Your task to perform on an android device: turn pop-ups off in chrome Image 0: 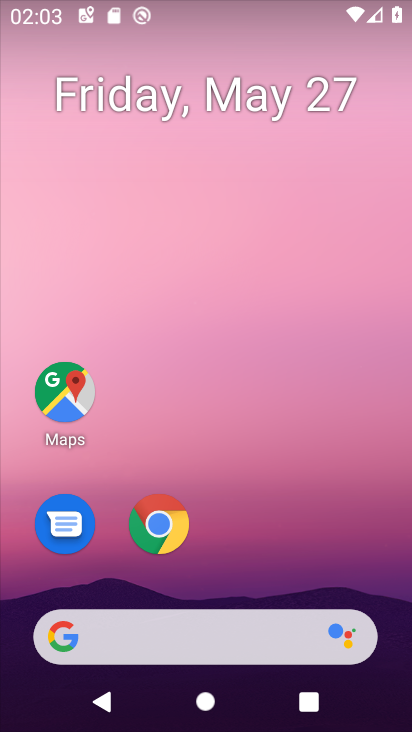
Step 0: click (169, 529)
Your task to perform on an android device: turn pop-ups off in chrome Image 1: 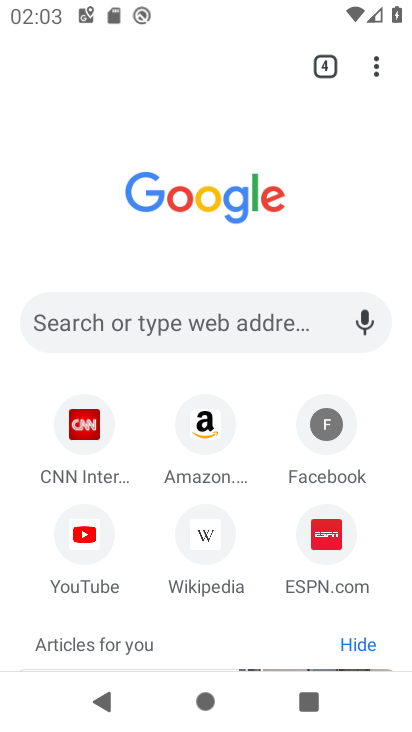
Step 1: click (375, 68)
Your task to perform on an android device: turn pop-ups off in chrome Image 2: 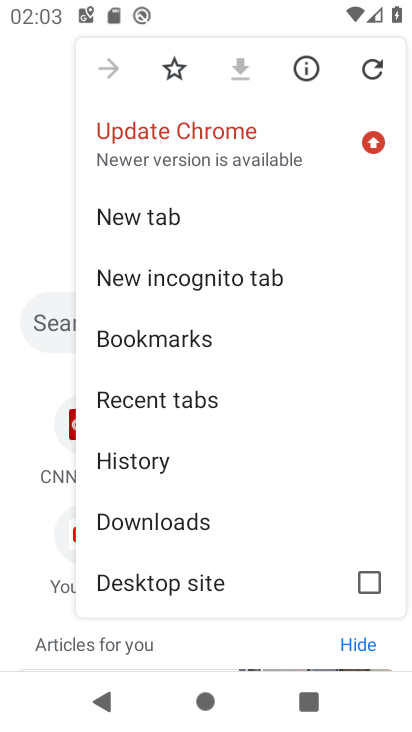
Step 2: drag from (269, 378) to (284, 193)
Your task to perform on an android device: turn pop-ups off in chrome Image 3: 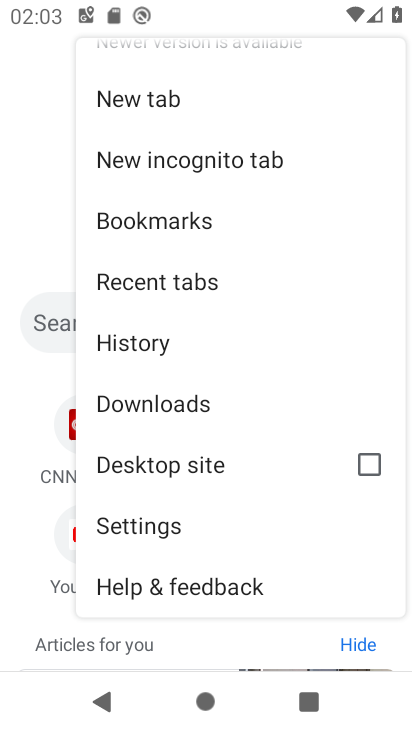
Step 3: click (189, 521)
Your task to perform on an android device: turn pop-ups off in chrome Image 4: 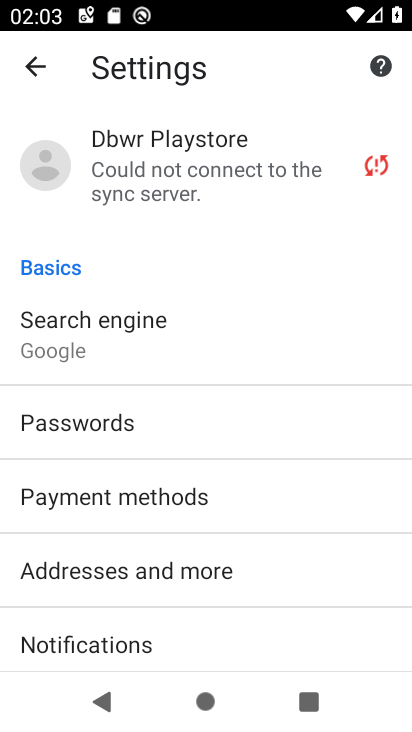
Step 4: drag from (216, 459) to (231, 28)
Your task to perform on an android device: turn pop-ups off in chrome Image 5: 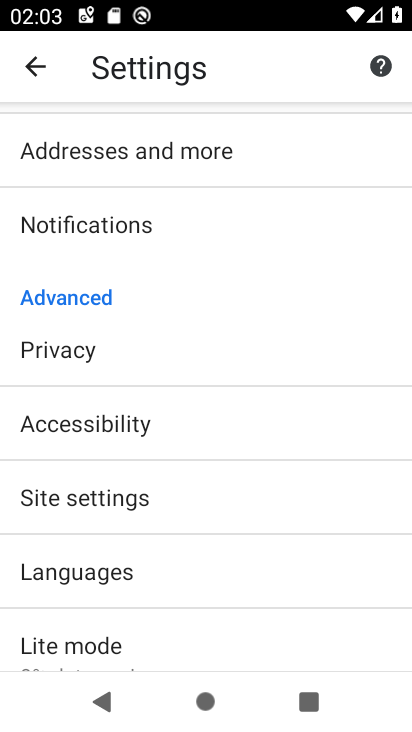
Step 5: click (188, 493)
Your task to perform on an android device: turn pop-ups off in chrome Image 6: 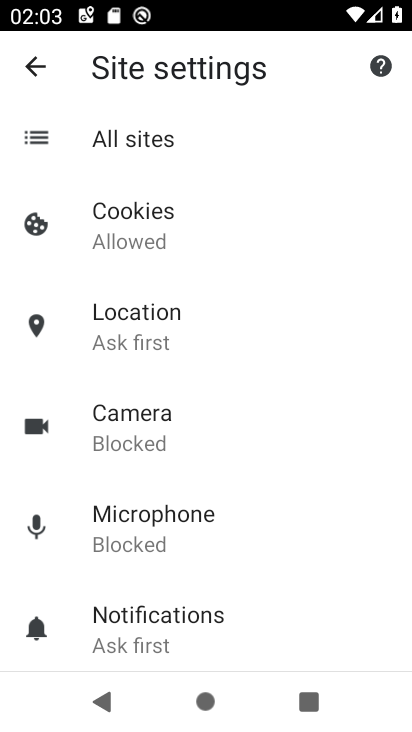
Step 6: drag from (206, 566) to (206, 200)
Your task to perform on an android device: turn pop-ups off in chrome Image 7: 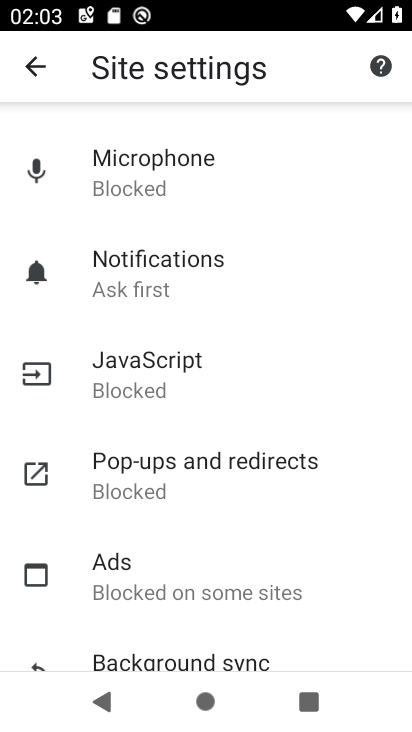
Step 7: click (227, 473)
Your task to perform on an android device: turn pop-ups off in chrome Image 8: 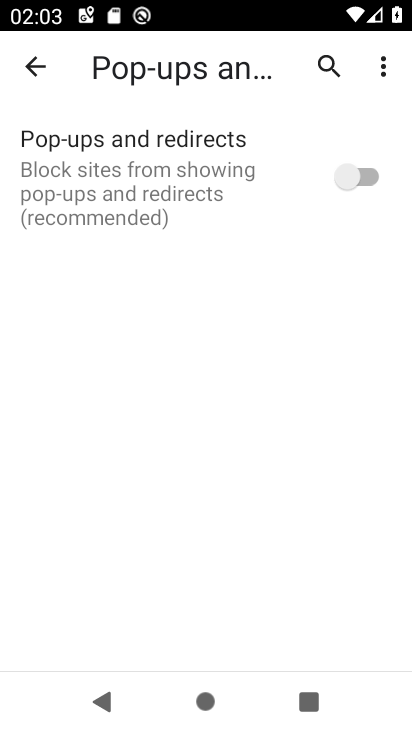
Step 8: task complete